Your task to perform on an android device: turn off airplane mode Image 0: 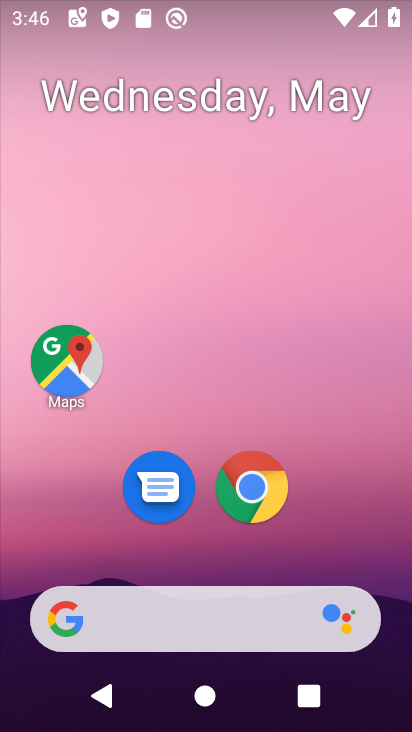
Step 0: drag from (344, 487) to (286, 44)
Your task to perform on an android device: turn off airplane mode Image 1: 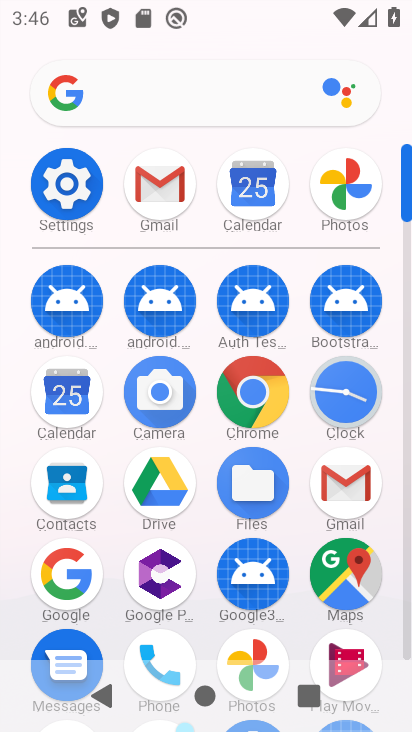
Step 1: drag from (8, 575) to (21, 258)
Your task to perform on an android device: turn off airplane mode Image 2: 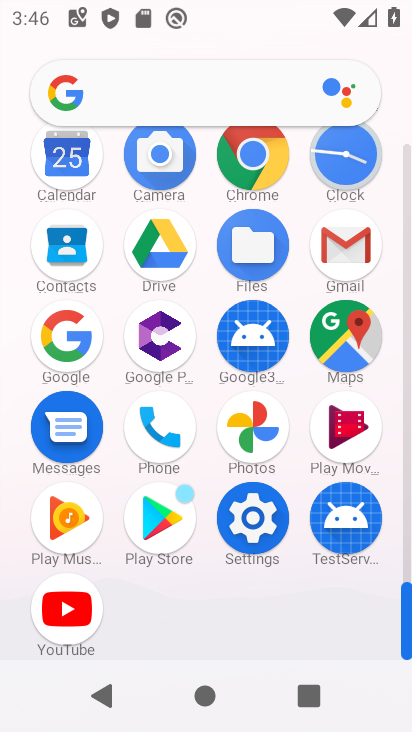
Step 2: click (242, 521)
Your task to perform on an android device: turn off airplane mode Image 3: 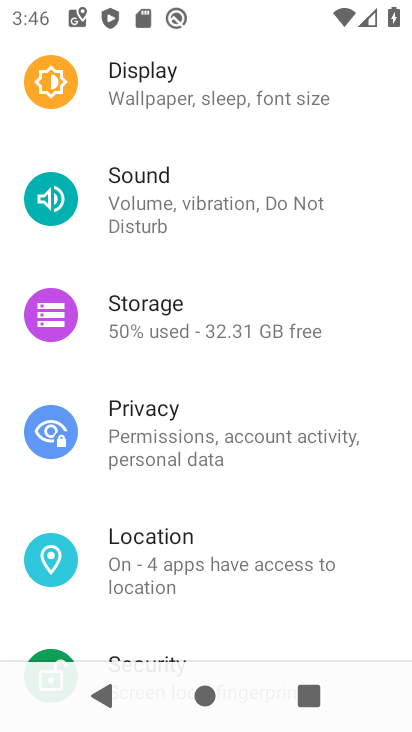
Step 3: drag from (273, 185) to (231, 607)
Your task to perform on an android device: turn off airplane mode Image 4: 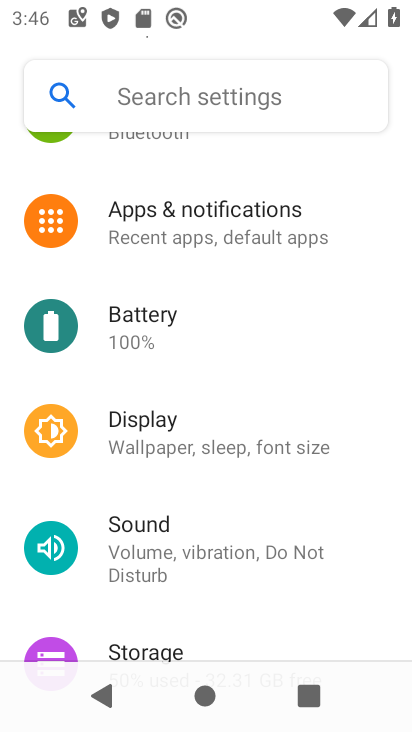
Step 4: drag from (244, 229) to (263, 577)
Your task to perform on an android device: turn off airplane mode Image 5: 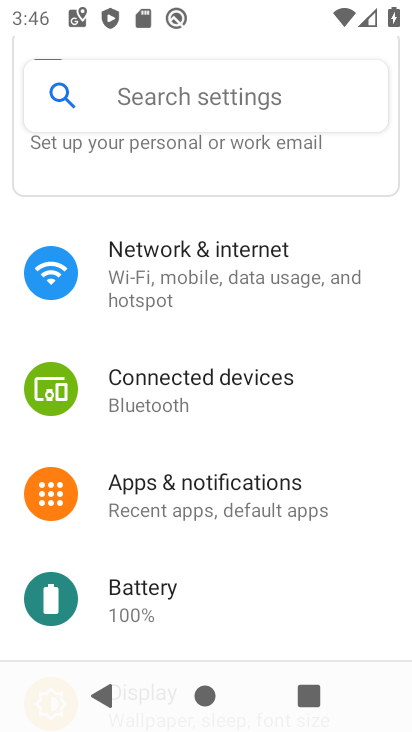
Step 5: click (263, 274)
Your task to perform on an android device: turn off airplane mode Image 6: 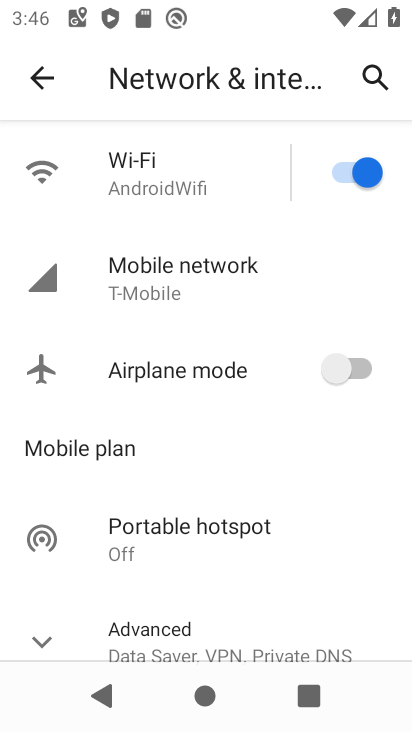
Step 6: click (46, 637)
Your task to perform on an android device: turn off airplane mode Image 7: 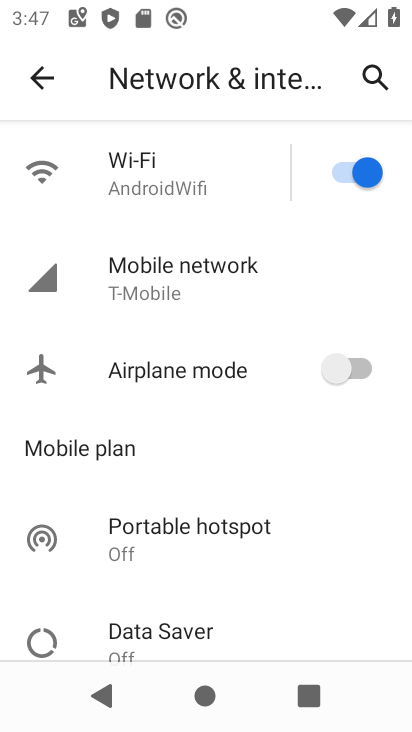
Step 7: task complete